Your task to perform on an android device: turn off wifi Image 0: 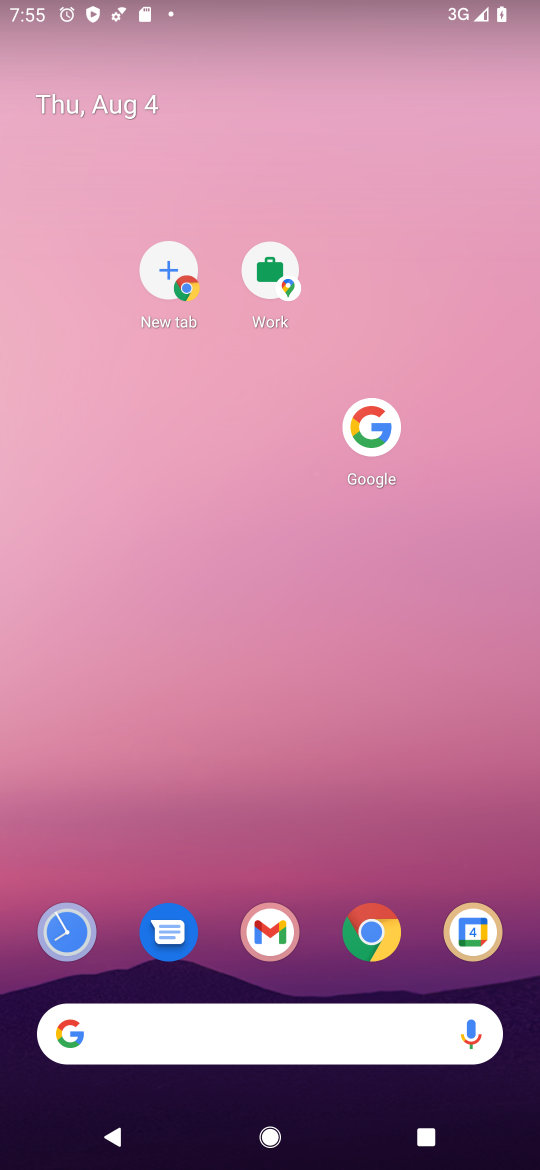
Step 0: drag from (258, 1052) to (383, 299)
Your task to perform on an android device: turn off wifi Image 1: 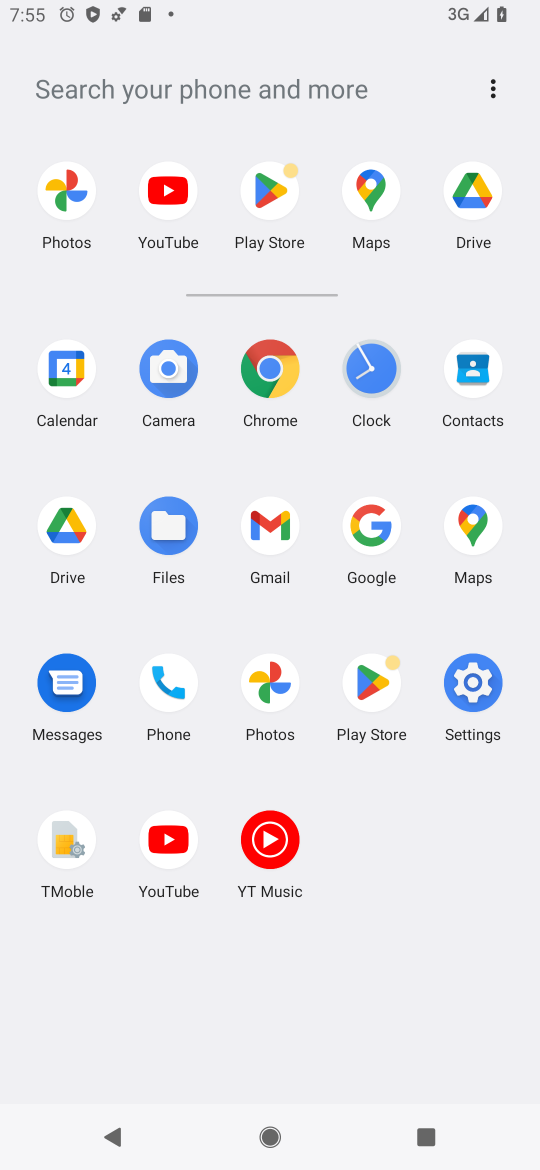
Step 1: click (475, 679)
Your task to perform on an android device: turn off wifi Image 2: 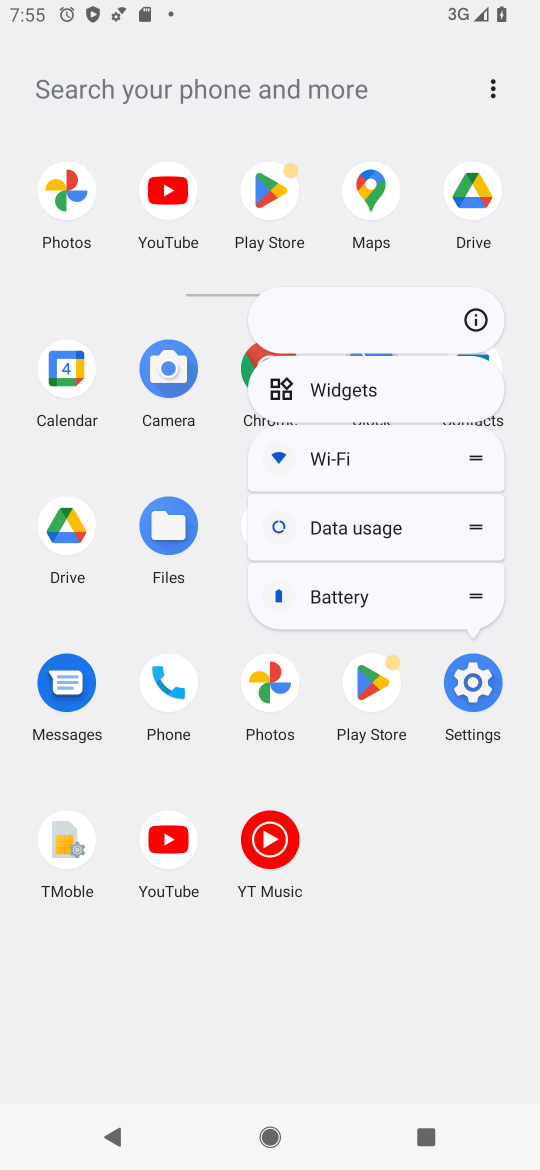
Step 2: click (466, 683)
Your task to perform on an android device: turn off wifi Image 3: 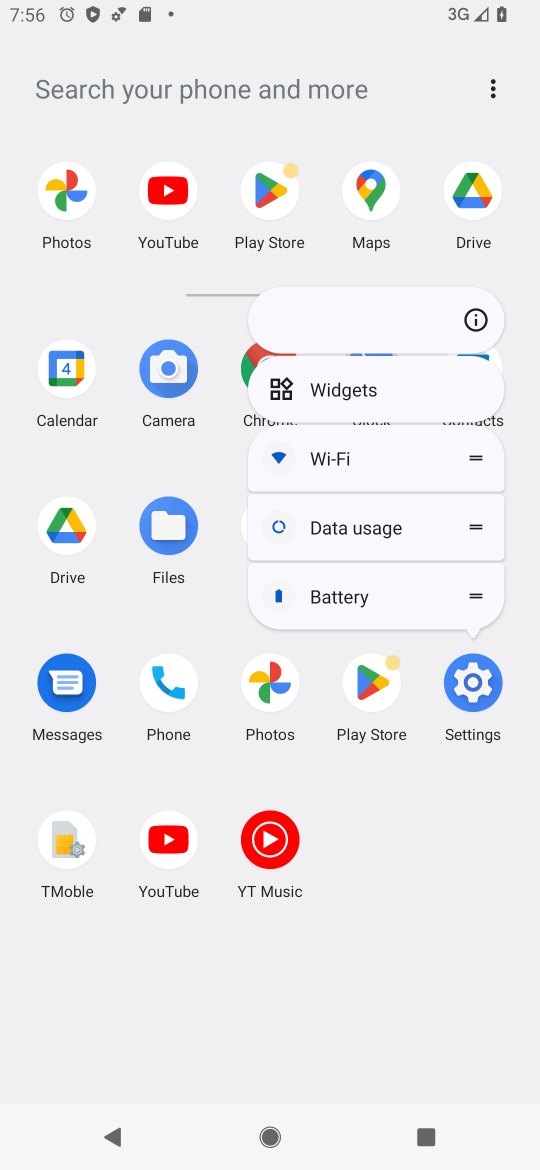
Step 3: click (345, 454)
Your task to perform on an android device: turn off wifi Image 4: 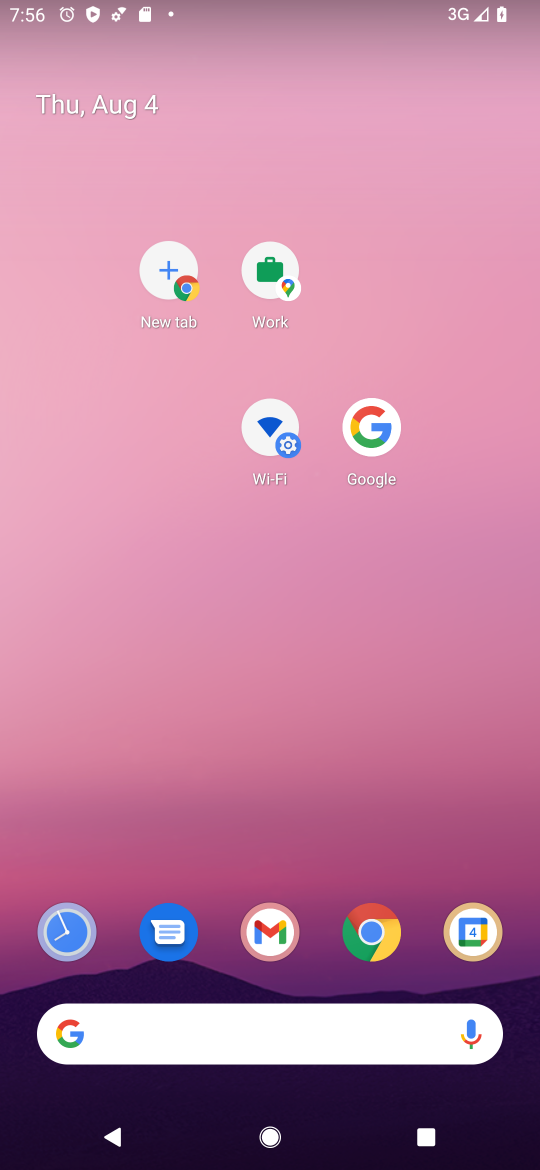
Step 4: drag from (228, 944) to (251, 442)
Your task to perform on an android device: turn off wifi Image 5: 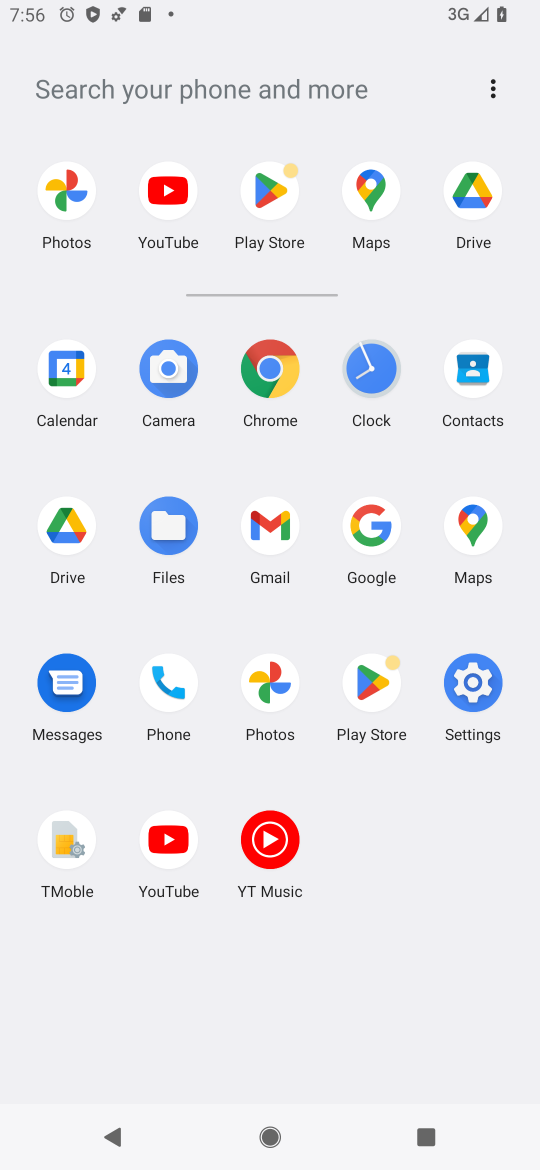
Step 5: click (493, 684)
Your task to perform on an android device: turn off wifi Image 6: 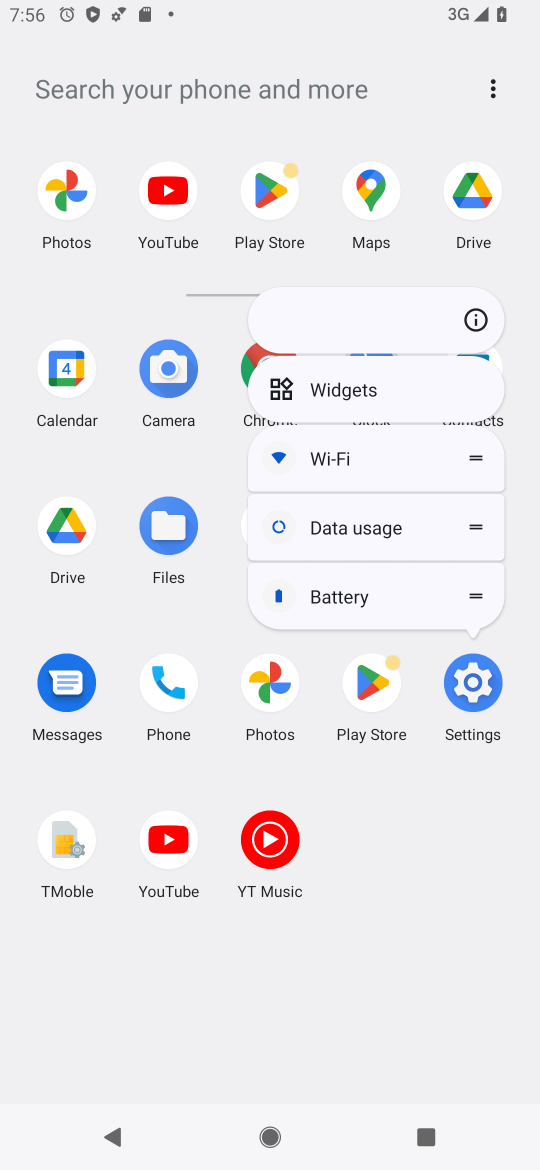
Step 6: click (349, 455)
Your task to perform on an android device: turn off wifi Image 7: 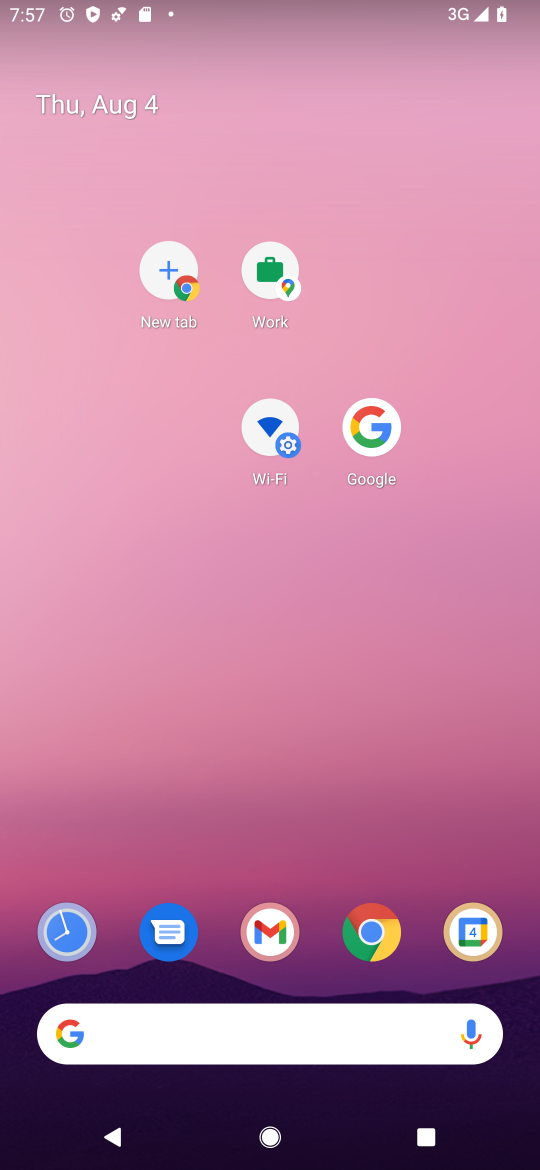
Step 7: drag from (266, 918) to (238, 203)
Your task to perform on an android device: turn off wifi Image 8: 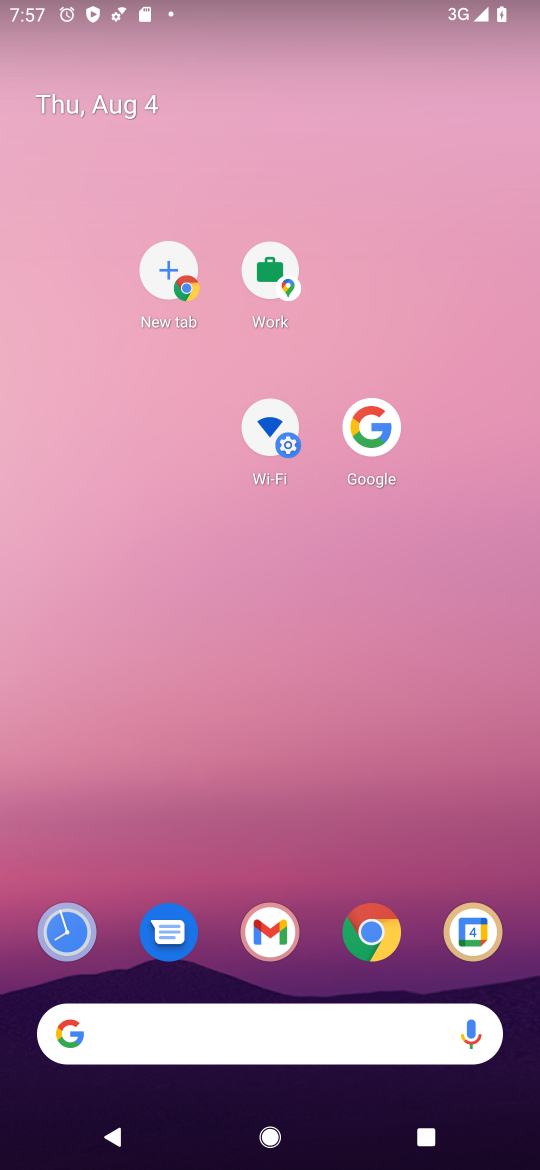
Step 8: drag from (415, 733) to (347, 761)
Your task to perform on an android device: turn off wifi Image 9: 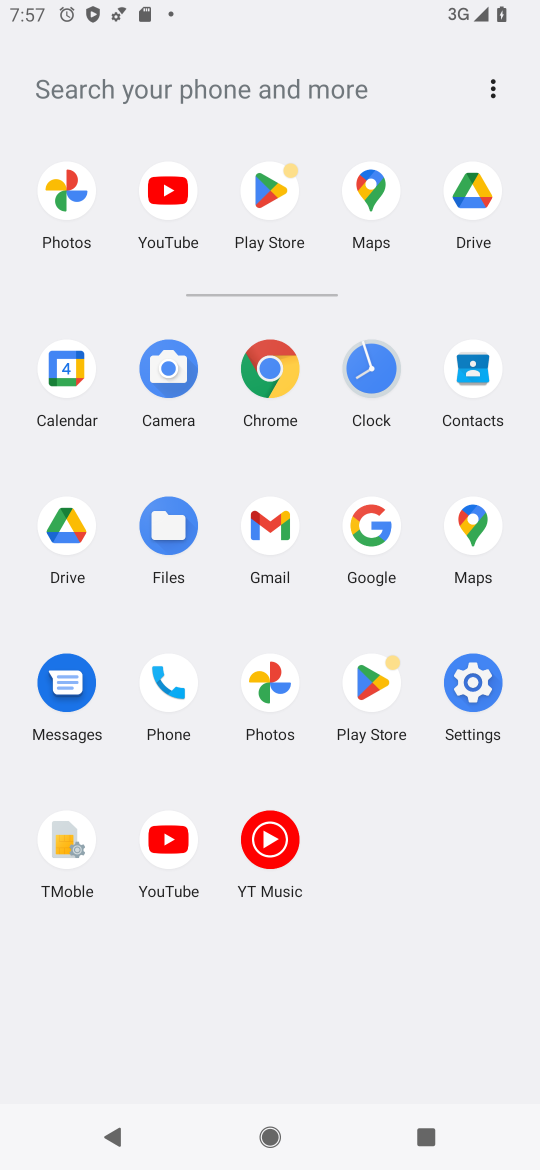
Step 9: click (461, 693)
Your task to perform on an android device: turn off wifi Image 10: 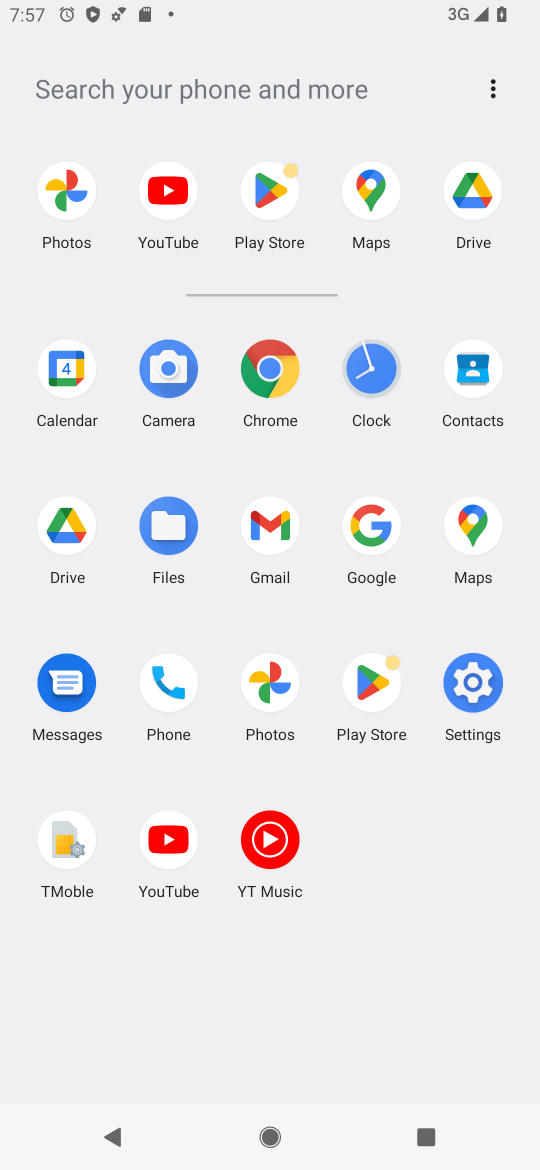
Step 10: click (464, 691)
Your task to perform on an android device: turn off wifi Image 11: 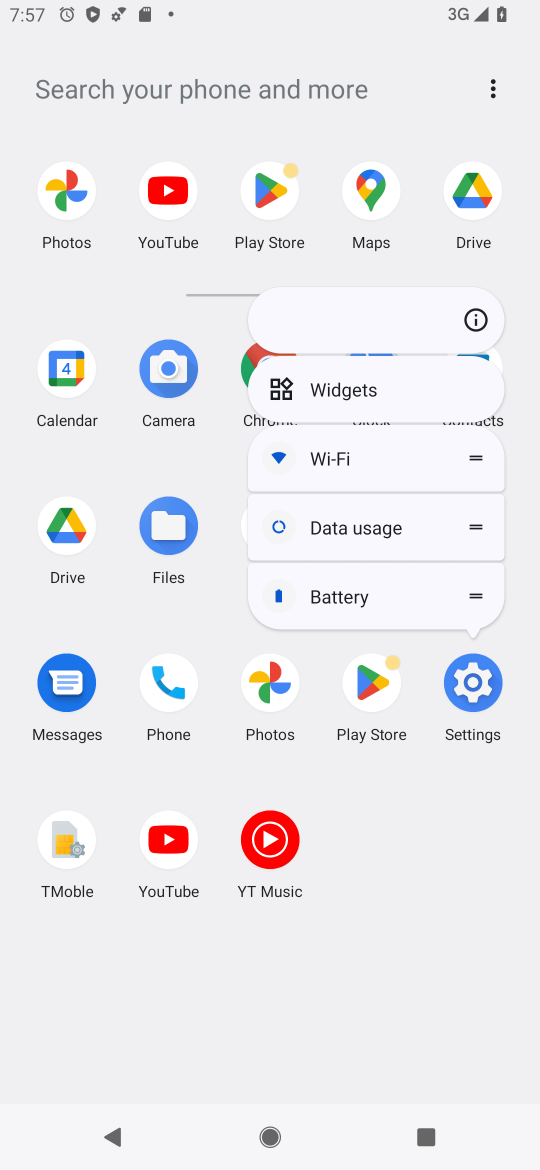
Step 11: click (360, 465)
Your task to perform on an android device: turn off wifi Image 12: 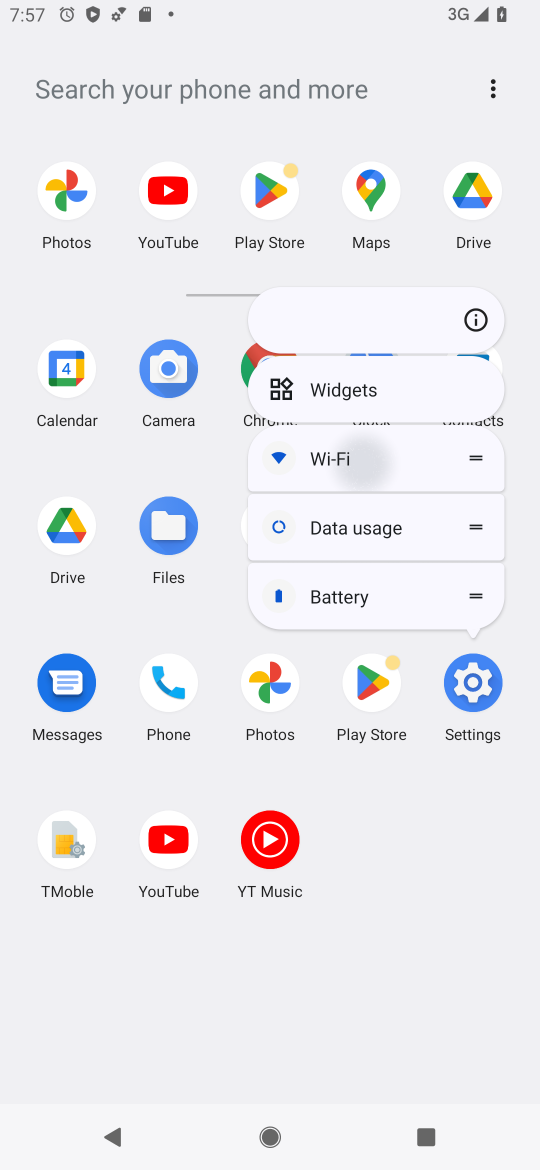
Step 12: click (360, 462)
Your task to perform on an android device: turn off wifi Image 13: 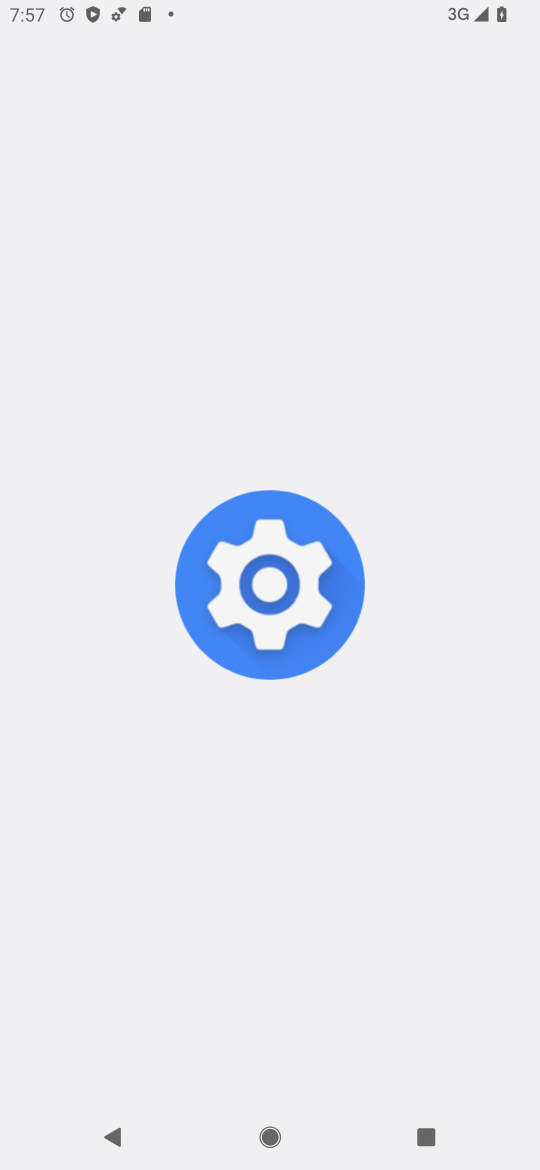
Step 13: click (374, 443)
Your task to perform on an android device: turn off wifi Image 14: 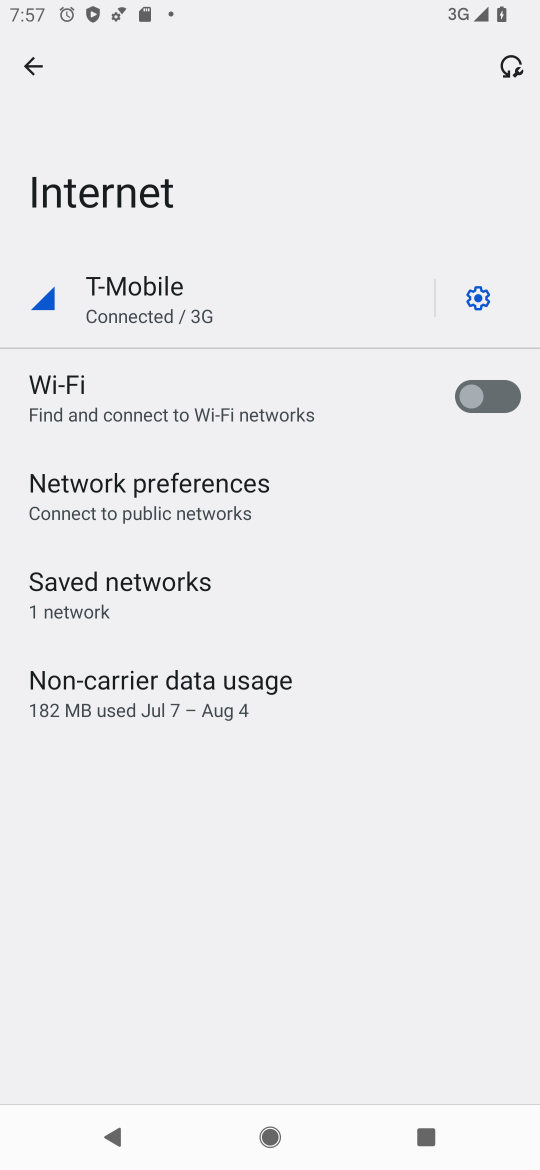
Step 14: task complete